Your task to perform on an android device: Is it going to rain tomorrow? Image 0: 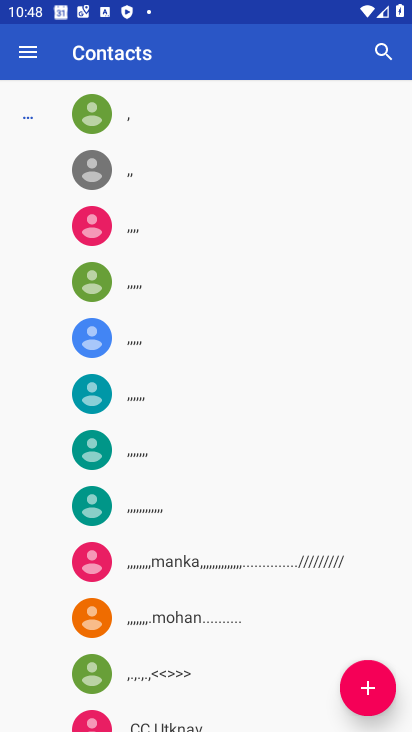
Step 0: press home button
Your task to perform on an android device: Is it going to rain tomorrow? Image 1: 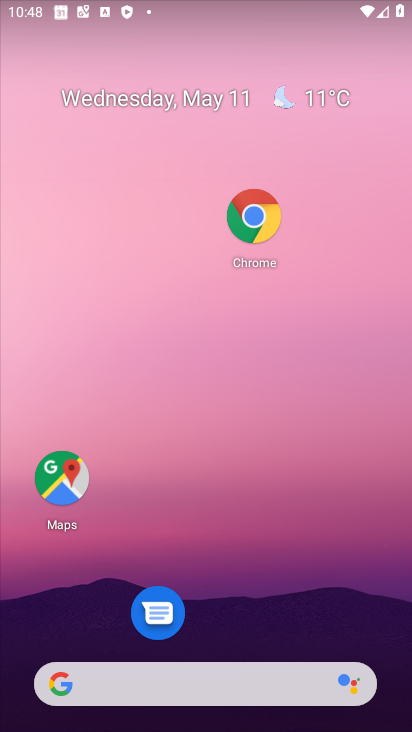
Step 1: click (324, 107)
Your task to perform on an android device: Is it going to rain tomorrow? Image 2: 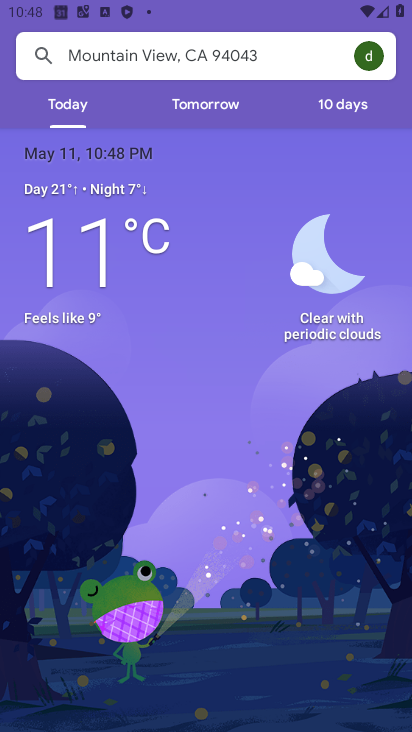
Step 2: click (228, 111)
Your task to perform on an android device: Is it going to rain tomorrow? Image 3: 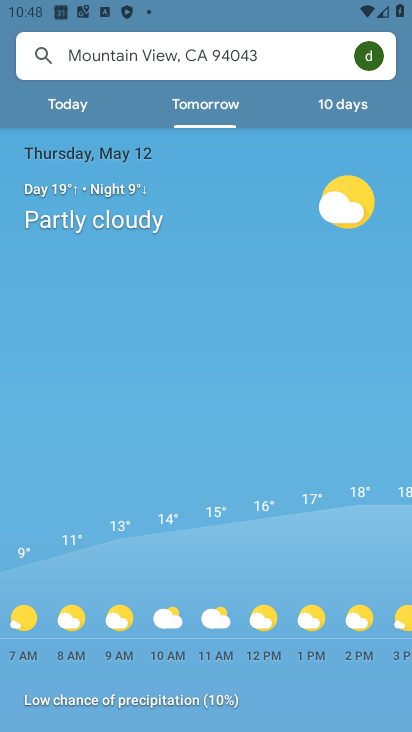
Step 3: task complete